Your task to perform on an android device: What is the news today? Image 0: 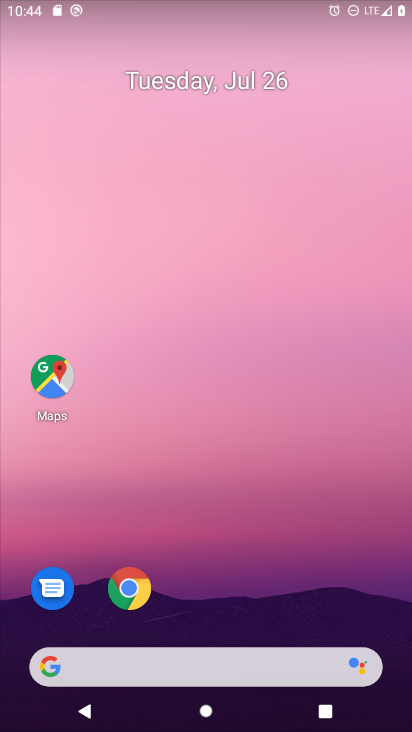
Step 0: drag from (258, 666) to (297, 2)
Your task to perform on an android device: What is the news today? Image 1: 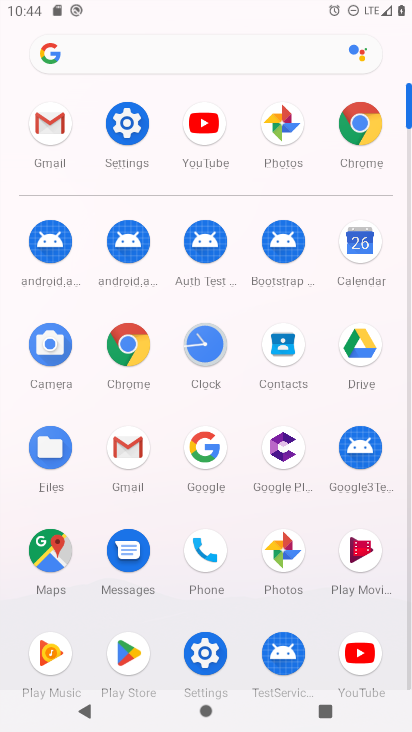
Step 1: click (208, 450)
Your task to perform on an android device: What is the news today? Image 2: 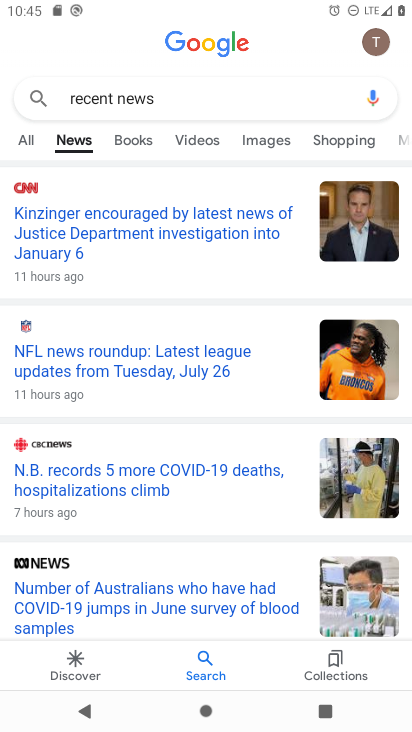
Step 2: task complete